Your task to perform on an android device: Go to network settings Image 0: 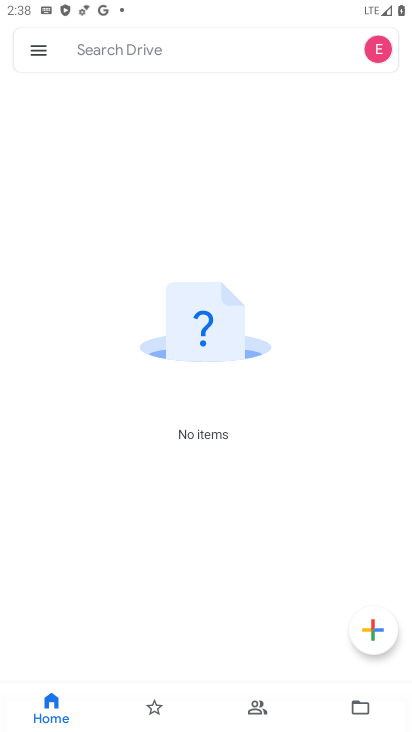
Step 0: press home button
Your task to perform on an android device: Go to network settings Image 1: 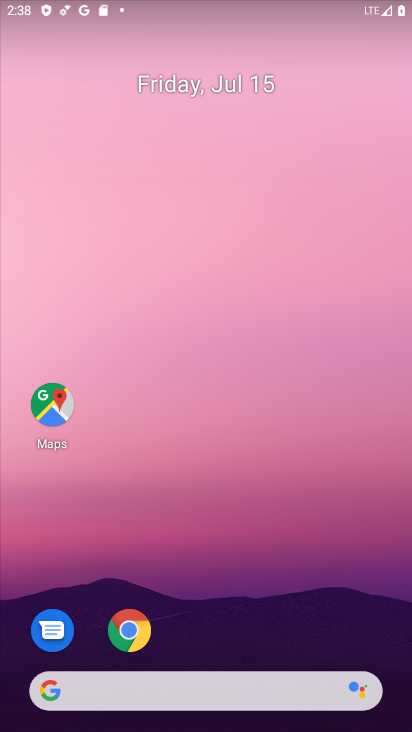
Step 1: drag from (201, 696) to (226, 192)
Your task to perform on an android device: Go to network settings Image 2: 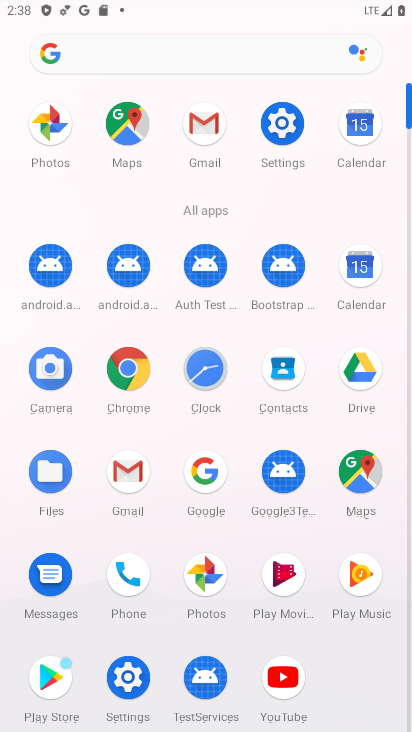
Step 2: click (285, 124)
Your task to perform on an android device: Go to network settings Image 3: 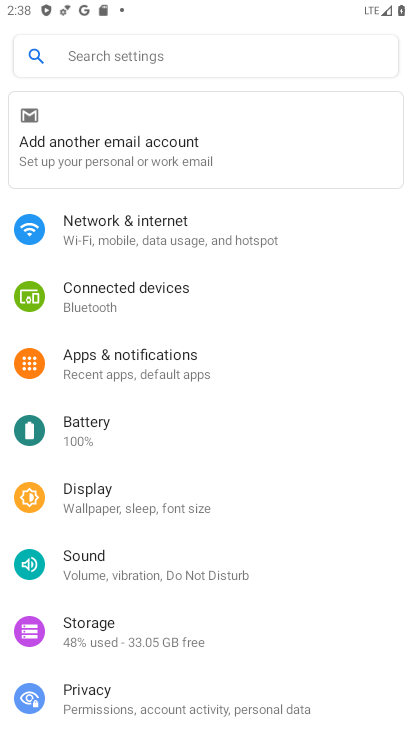
Step 3: click (103, 243)
Your task to perform on an android device: Go to network settings Image 4: 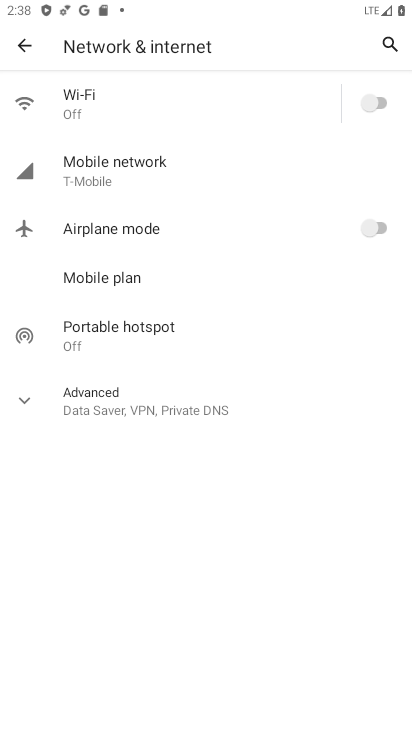
Step 4: task complete